Your task to perform on an android device: change keyboard looks Image 0: 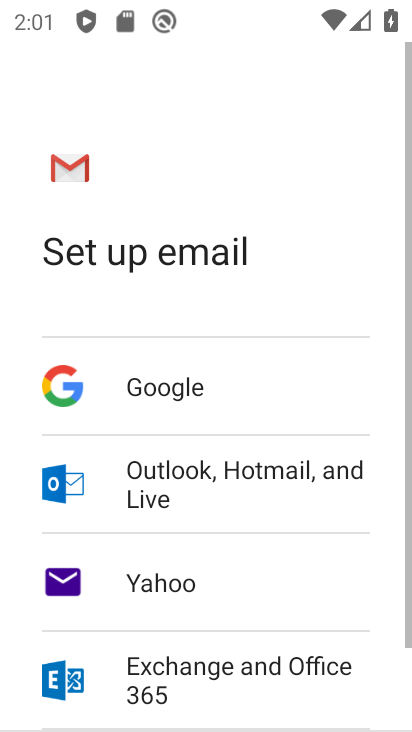
Step 0: drag from (215, 724) to (396, 703)
Your task to perform on an android device: change keyboard looks Image 1: 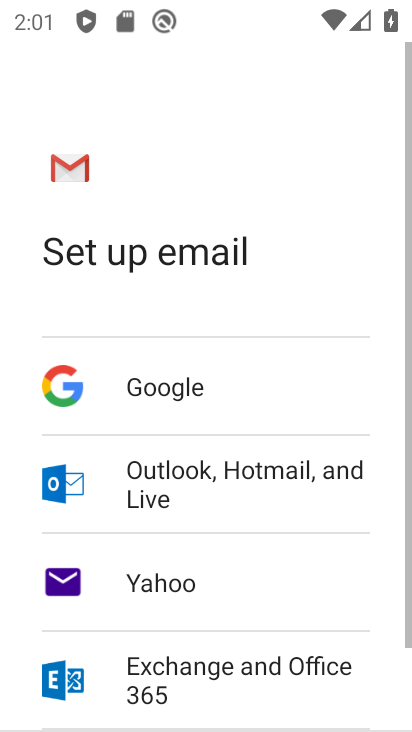
Step 1: press home button
Your task to perform on an android device: change keyboard looks Image 2: 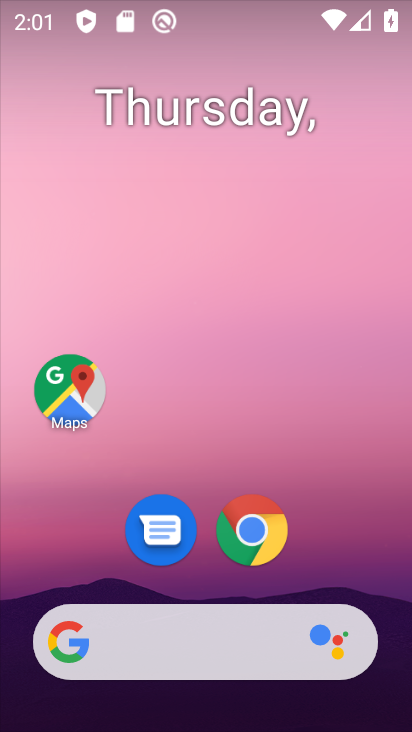
Step 2: drag from (170, 724) to (191, 7)
Your task to perform on an android device: change keyboard looks Image 3: 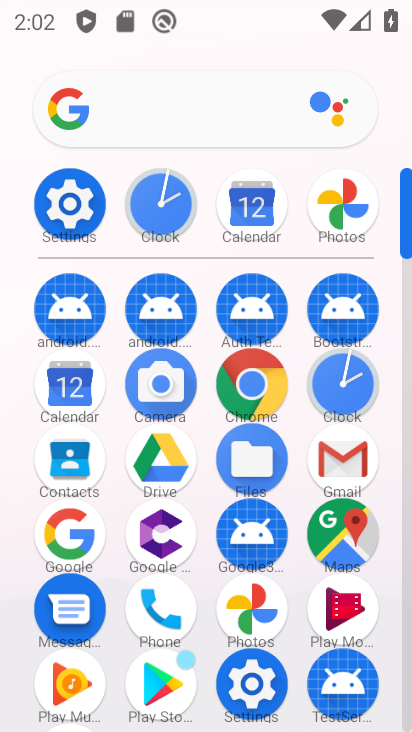
Step 3: click (59, 197)
Your task to perform on an android device: change keyboard looks Image 4: 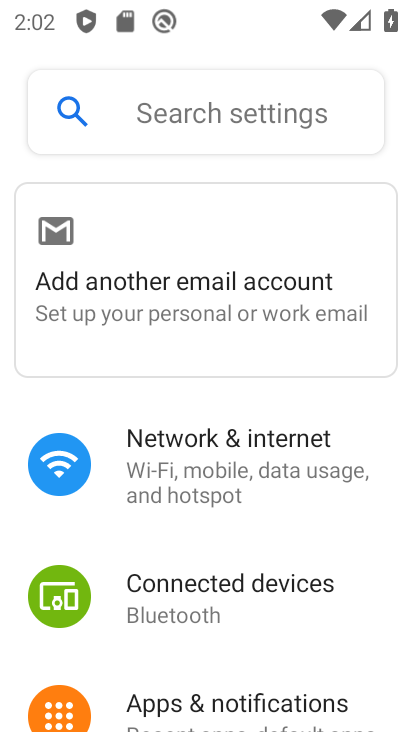
Step 4: drag from (267, 674) to (211, 103)
Your task to perform on an android device: change keyboard looks Image 5: 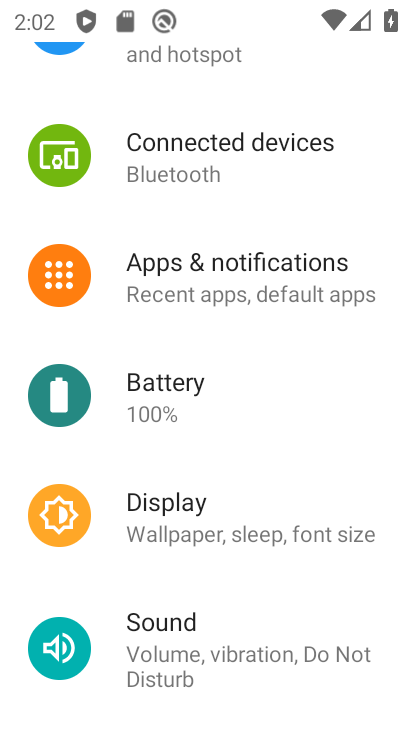
Step 5: drag from (308, 610) to (290, 194)
Your task to perform on an android device: change keyboard looks Image 6: 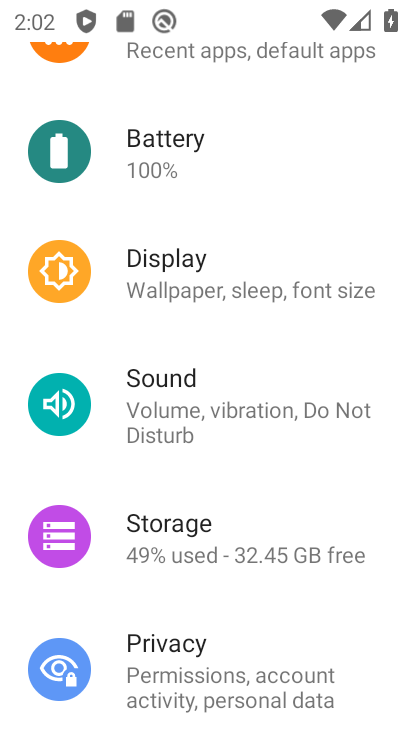
Step 6: drag from (250, 600) to (234, 145)
Your task to perform on an android device: change keyboard looks Image 7: 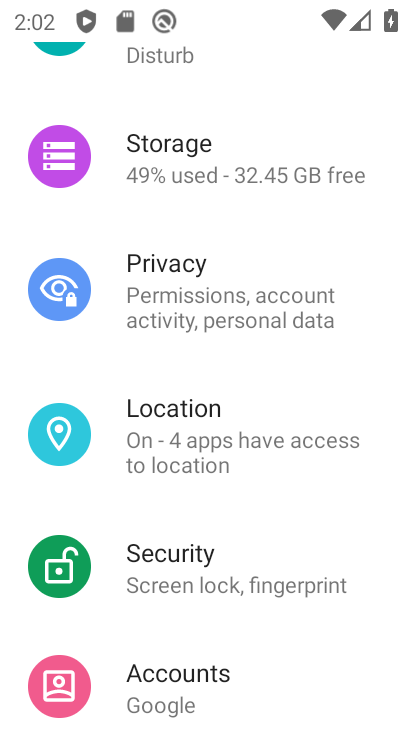
Step 7: drag from (234, 623) to (238, 254)
Your task to perform on an android device: change keyboard looks Image 8: 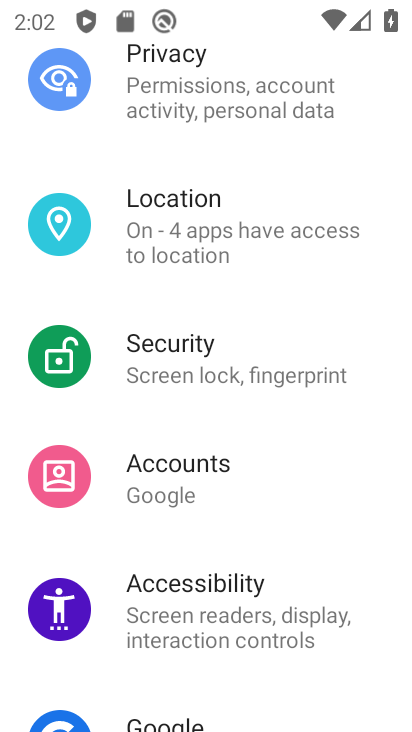
Step 8: drag from (270, 678) to (290, 59)
Your task to perform on an android device: change keyboard looks Image 9: 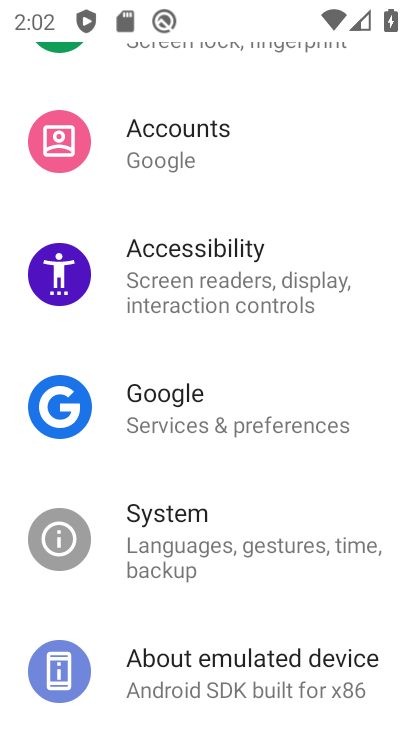
Step 9: drag from (320, 166) to (315, 675)
Your task to perform on an android device: change keyboard looks Image 10: 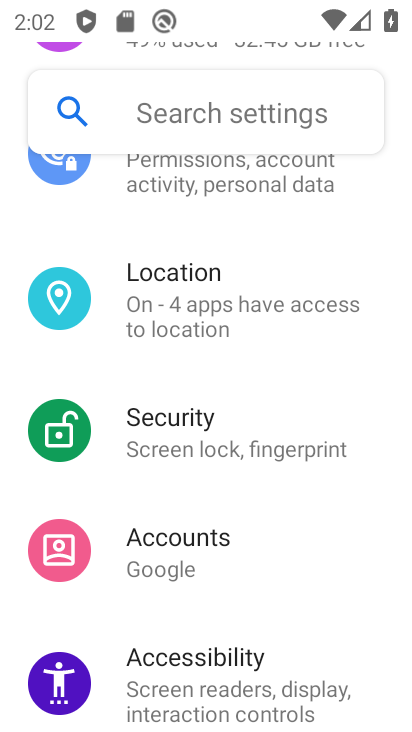
Step 10: drag from (320, 329) to (349, 685)
Your task to perform on an android device: change keyboard looks Image 11: 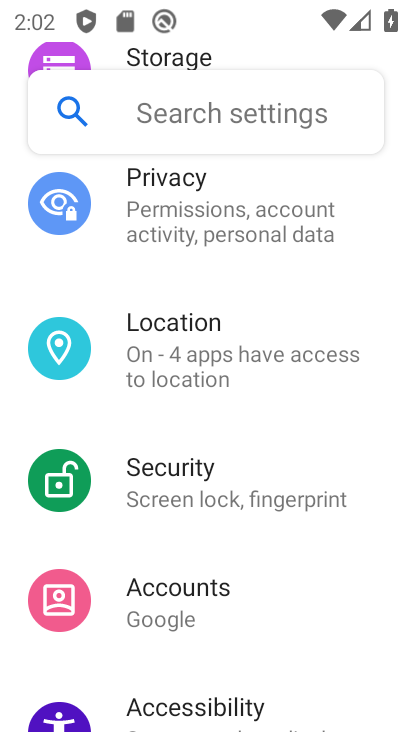
Step 11: drag from (345, 274) to (348, 703)
Your task to perform on an android device: change keyboard looks Image 12: 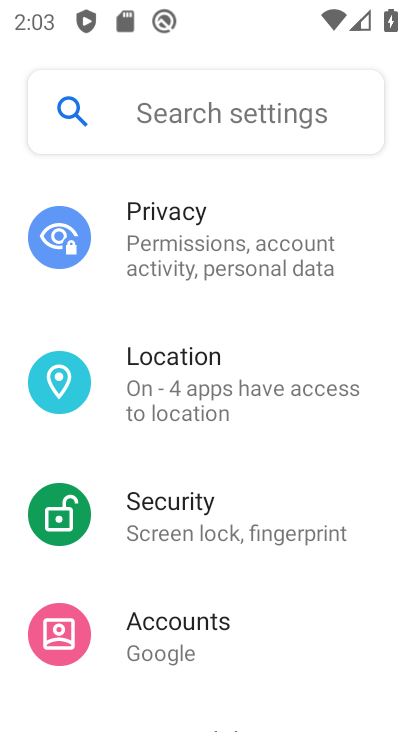
Step 12: drag from (333, 351) to (334, 725)
Your task to perform on an android device: change keyboard looks Image 13: 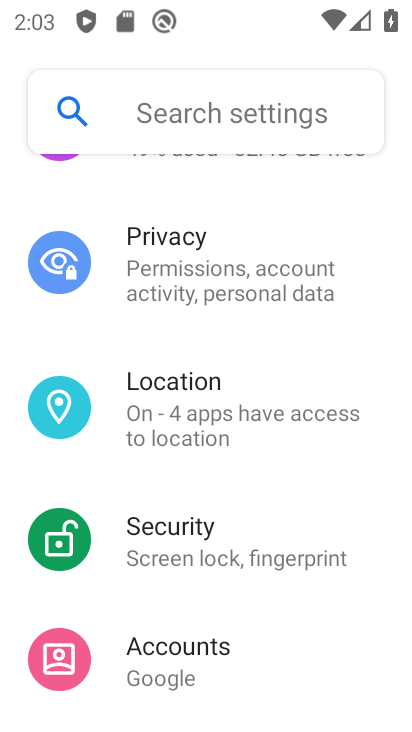
Step 13: drag from (325, 214) to (202, 731)
Your task to perform on an android device: change keyboard looks Image 14: 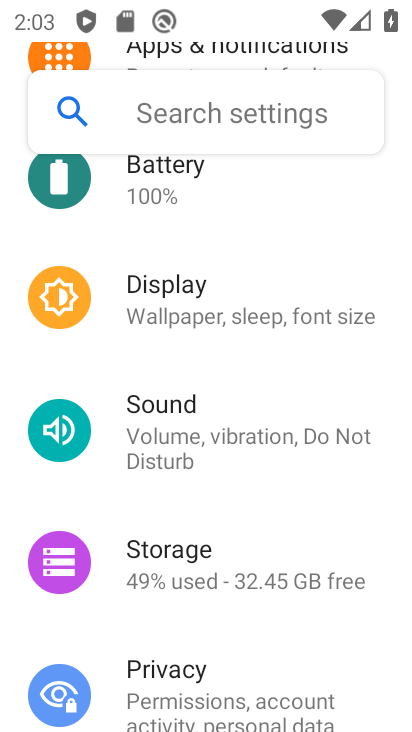
Step 14: drag from (305, 191) to (297, 690)
Your task to perform on an android device: change keyboard looks Image 15: 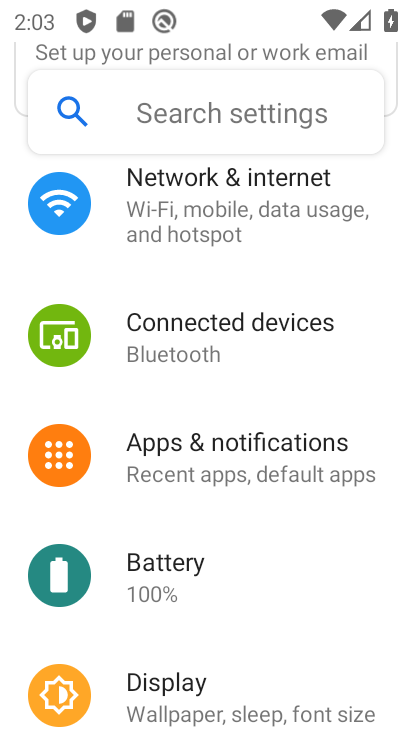
Step 15: drag from (274, 667) to (274, 69)
Your task to perform on an android device: change keyboard looks Image 16: 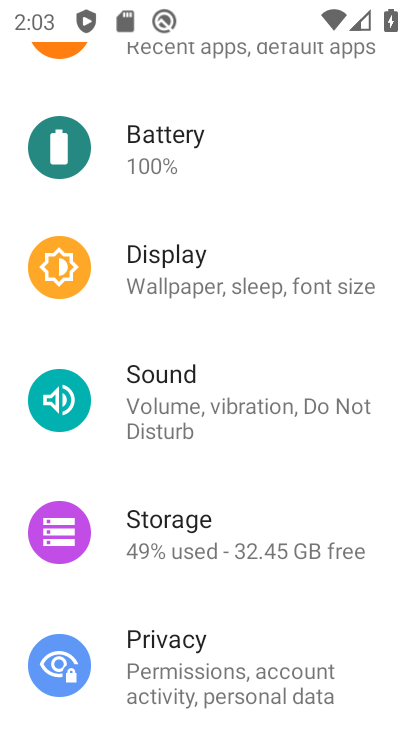
Step 16: drag from (232, 655) to (244, 204)
Your task to perform on an android device: change keyboard looks Image 17: 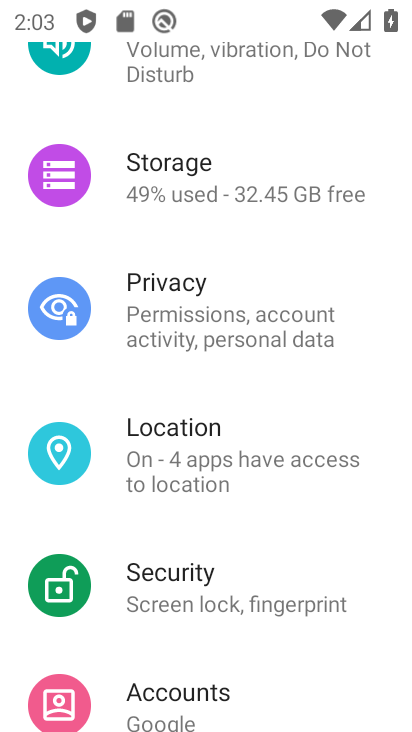
Step 17: drag from (142, 684) to (149, 222)
Your task to perform on an android device: change keyboard looks Image 18: 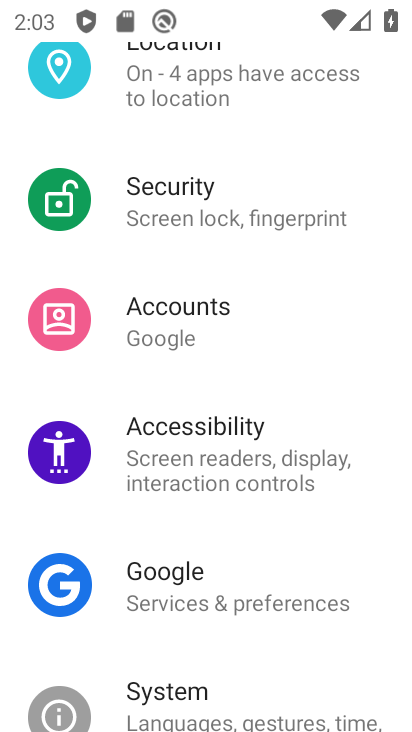
Step 18: drag from (197, 698) to (180, 206)
Your task to perform on an android device: change keyboard looks Image 19: 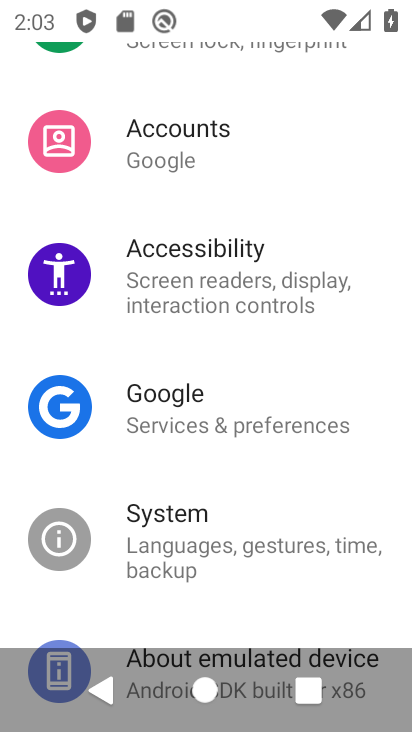
Step 19: click (217, 519)
Your task to perform on an android device: change keyboard looks Image 20: 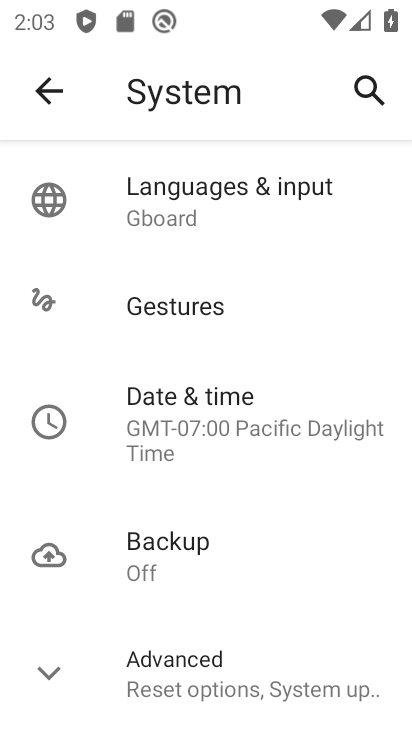
Step 20: click (198, 186)
Your task to perform on an android device: change keyboard looks Image 21: 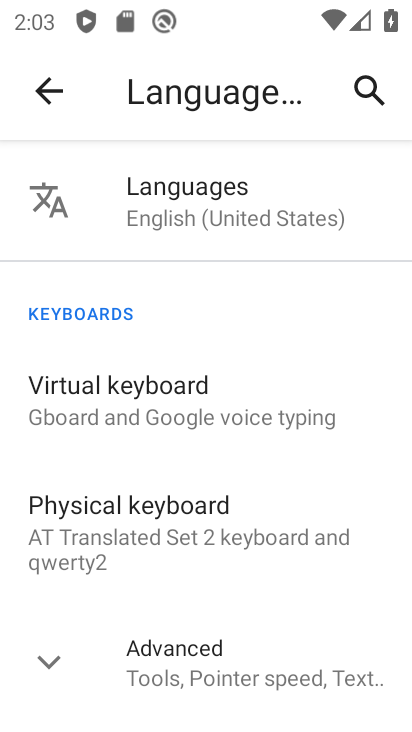
Step 21: click (165, 379)
Your task to perform on an android device: change keyboard looks Image 22: 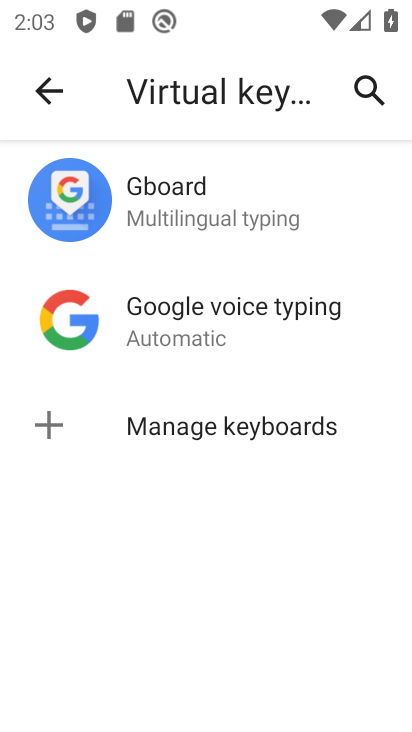
Step 22: click (221, 202)
Your task to perform on an android device: change keyboard looks Image 23: 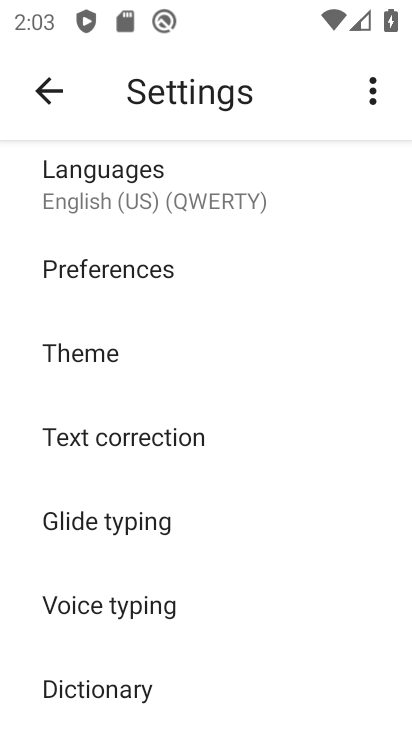
Step 23: click (104, 369)
Your task to perform on an android device: change keyboard looks Image 24: 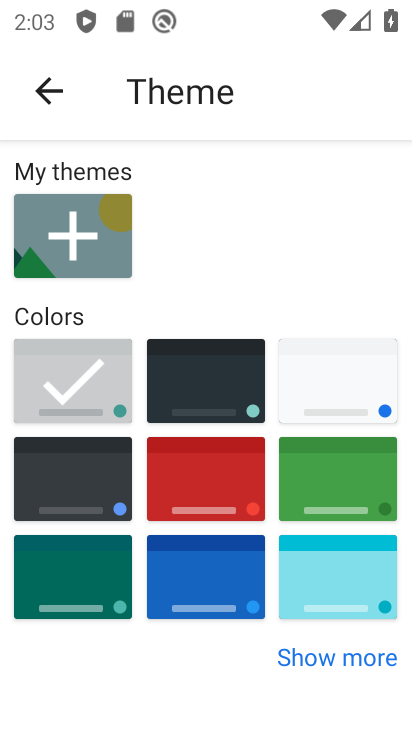
Step 24: click (224, 406)
Your task to perform on an android device: change keyboard looks Image 25: 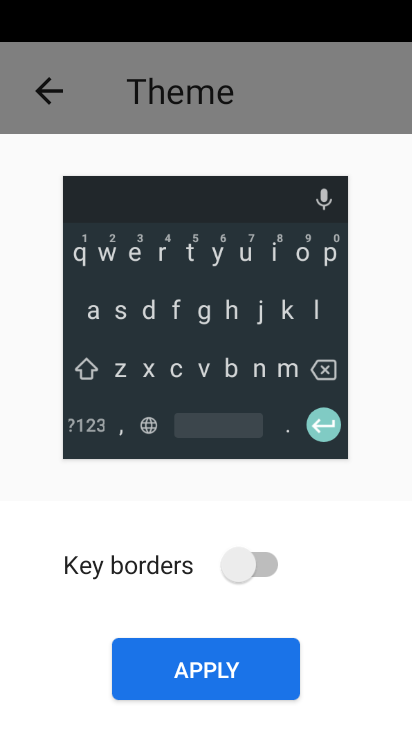
Step 25: click (220, 674)
Your task to perform on an android device: change keyboard looks Image 26: 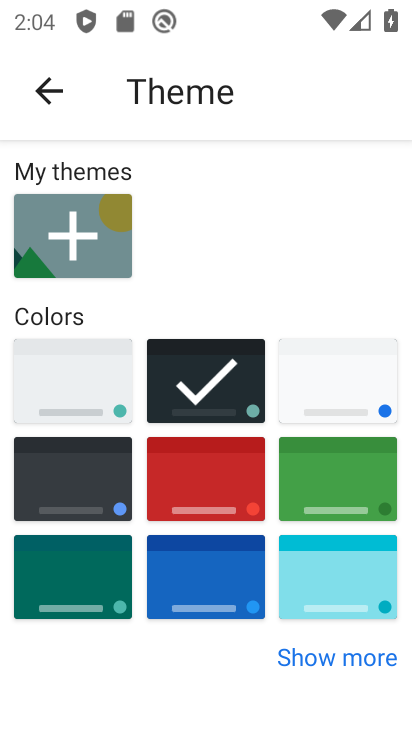
Step 26: task complete